Your task to perform on an android device: Go to ESPN.com Image 0: 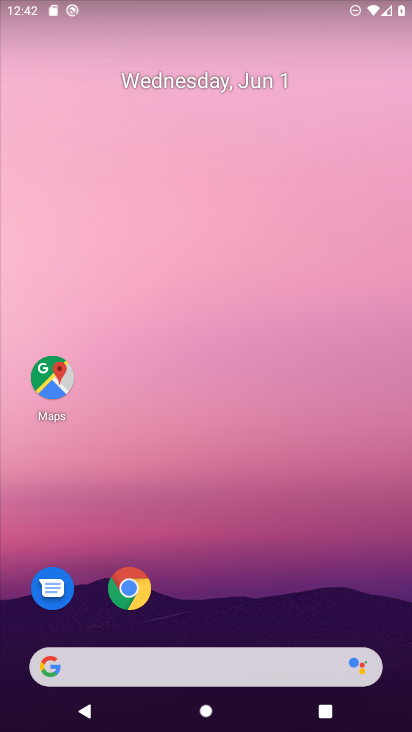
Step 0: click (131, 604)
Your task to perform on an android device: Go to ESPN.com Image 1: 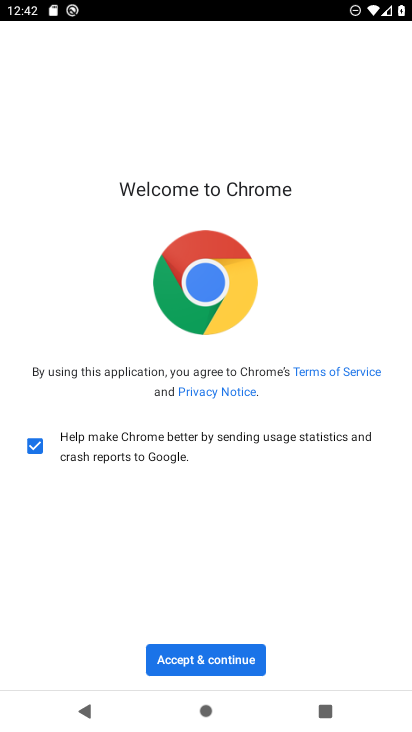
Step 1: click (203, 667)
Your task to perform on an android device: Go to ESPN.com Image 2: 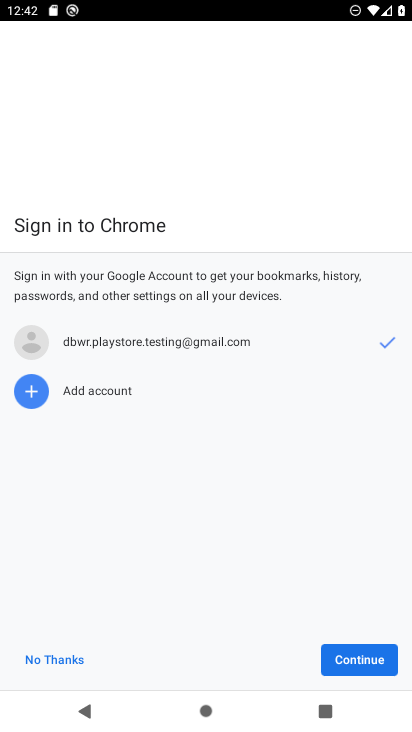
Step 2: click (373, 667)
Your task to perform on an android device: Go to ESPN.com Image 3: 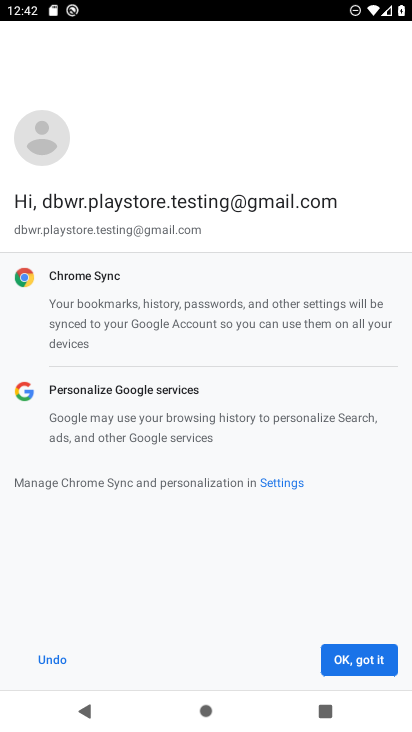
Step 3: click (374, 666)
Your task to perform on an android device: Go to ESPN.com Image 4: 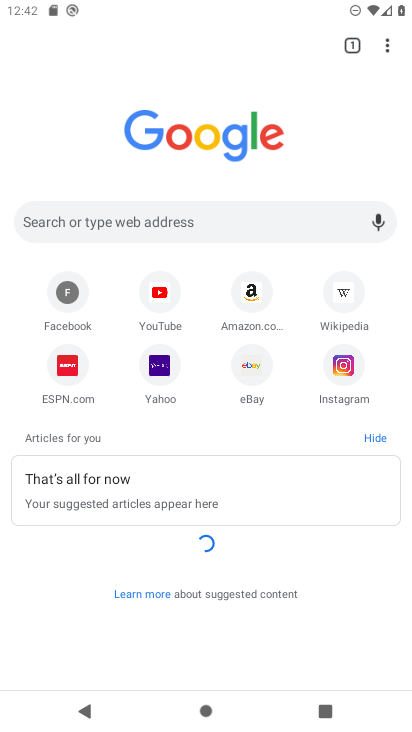
Step 4: click (64, 363)
Your task to perform on an android device: Go to ESPN.com Image 5: 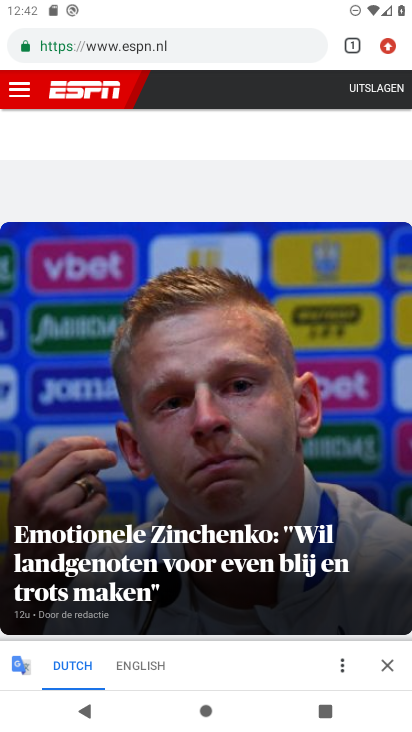
Step 5: task complete